Your task to perform on an android device: move an email to a new category in the gmail app Image 0: 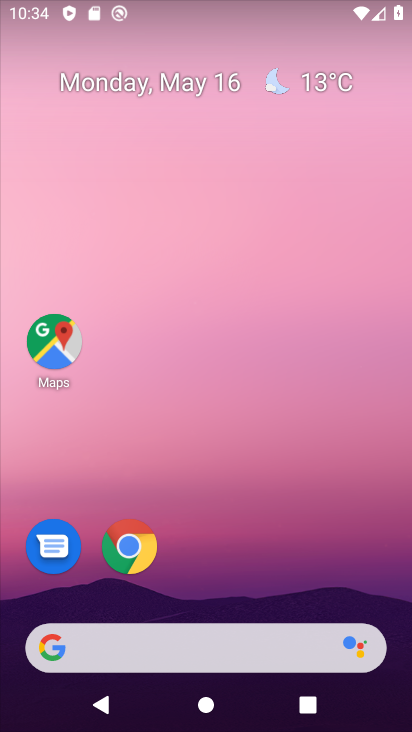
Step 0: drag from (295, 498) to (241, 1)
Your task to perform on an android device: move an email to a new category in the gmail app Image 1: 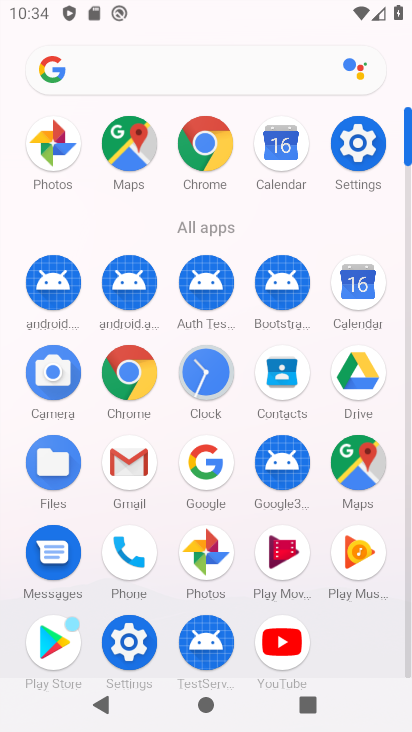
Step 1: click (129, 458)
Your task to perform on an android device: move an email to a new category in the gmail app Image 2: 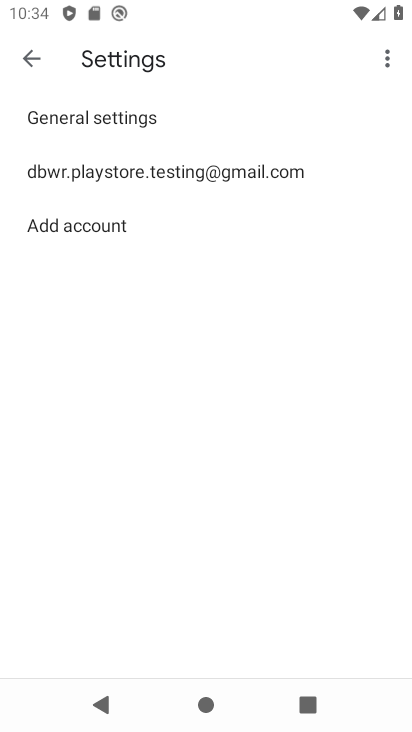
Step 2: click (217, 154)
Your task to perform on an android device: move an email to a new category in the gmail app Image 3: 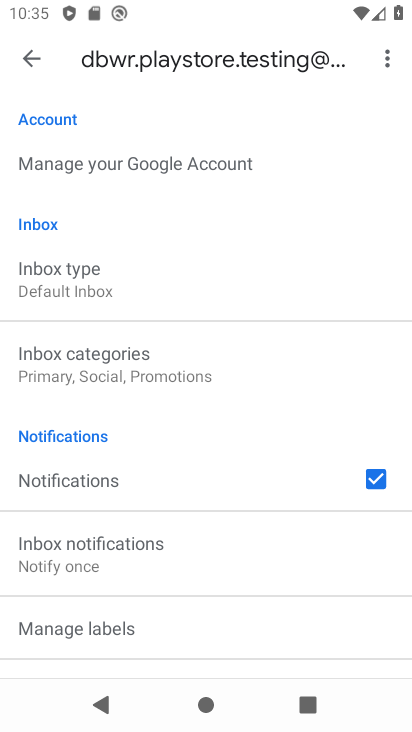
Step 3: click (36, 41)
Your task to perform on an android device: move an email to a new category in the gmail app Image 4: 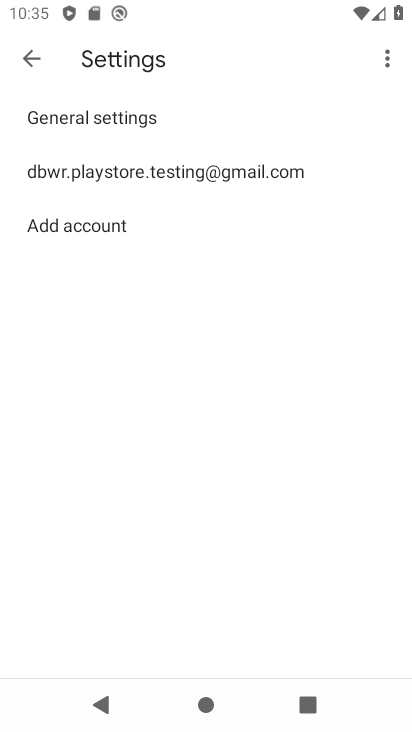
Step 4: click (37, 65)
Your task to perform on an android device: move an email to a new category in the gmail app Image 5: 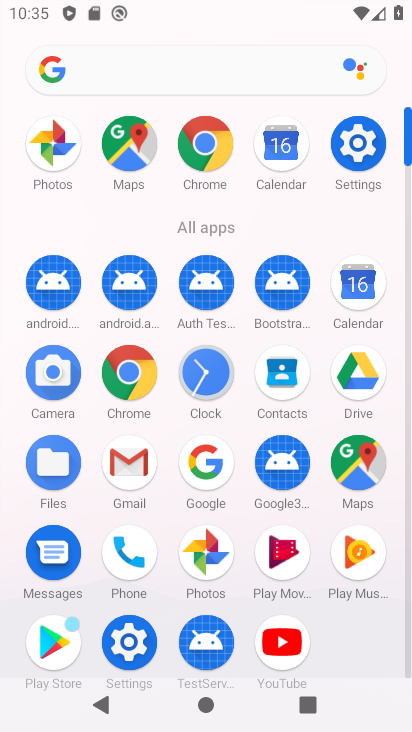
Step 5: click (131, 471)
Your task to perform on an android device: move an email to a new category in the gmail app Image 6: 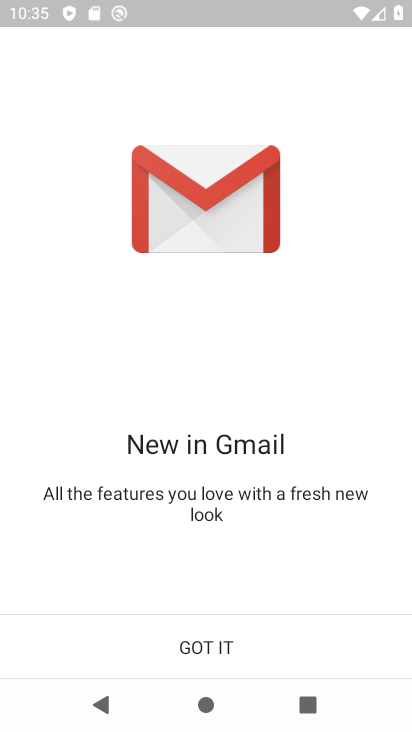
Step 6: click (205, 644)
Your task to perform on an android device: move an email to a new category in the gmail app Image 7: 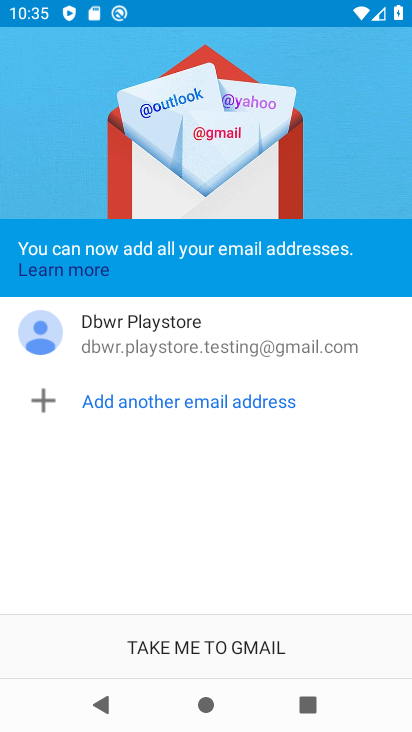
Step 7: click (205, 643)
Your task to perform on an android device: move an email to a new category in the gmail app Image 8: 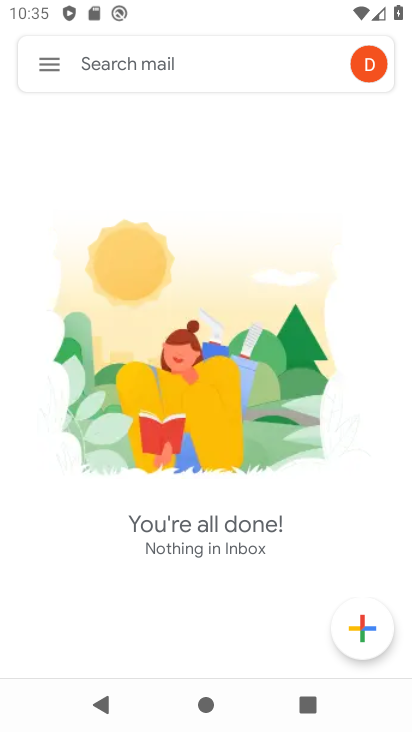
Step 8: task complete